Your task to perform on an android device: Open the calendar app, open the side menu, and click the "Day" option Image 0: 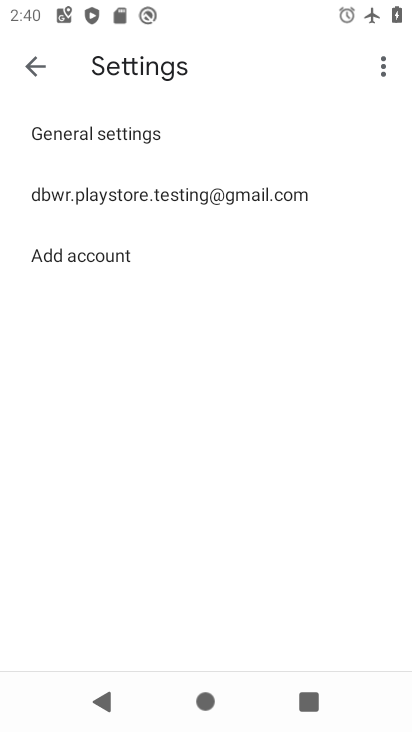
Step 0: press home button
Your task to perform on an android device: Open the calendar app, open the side menu, and click the "Day" option Image 1: 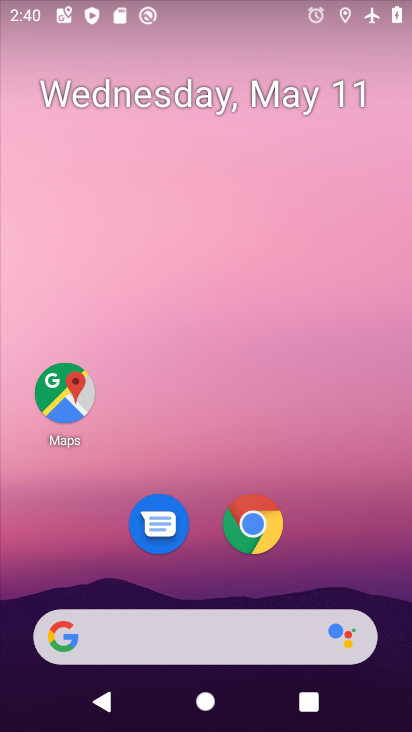
Step 1: drag from (336, 483) to (385, 64)
Your task to perform on an android device: Open the calendar app, open the side menu, and click the "Day" option Image 2: 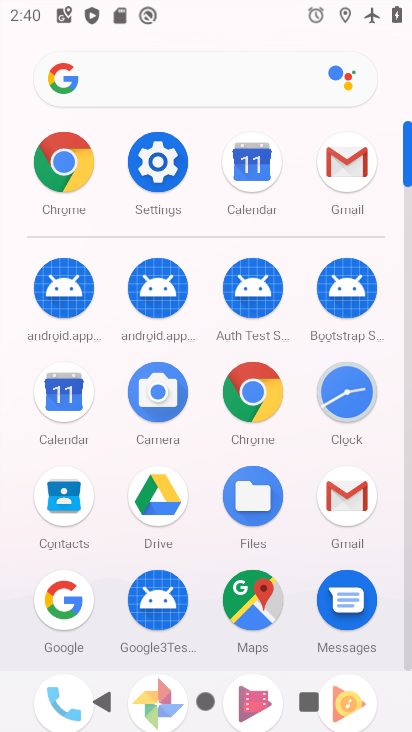
Step 2: click (262, 168)
Your task to perform on an android device: Open the calendar app, open the side menu, and click the "Day" option Image 3: 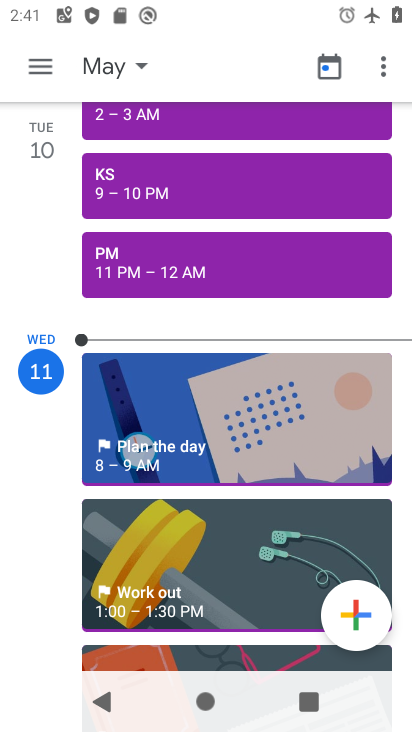
Step 3: click (43, 63)
Your task to perform on an android device: Open the calendar app, open the side menu, and click the "Day" option Image 4: 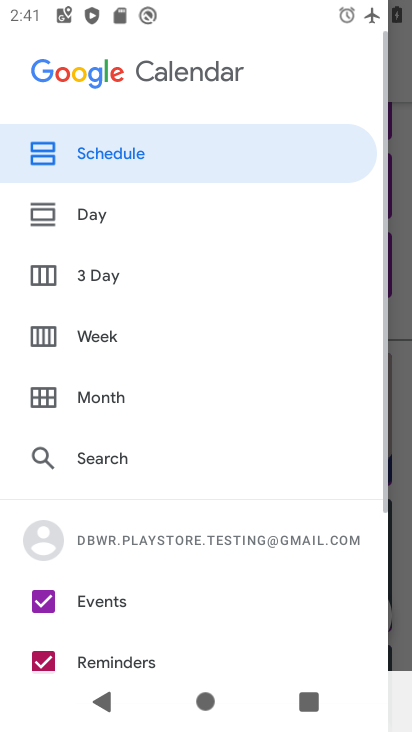
Step 4: click (77, 211)
Your task to perform on an android device: Open the calendar app, open the side menu, and click the "Day" option Image 5: 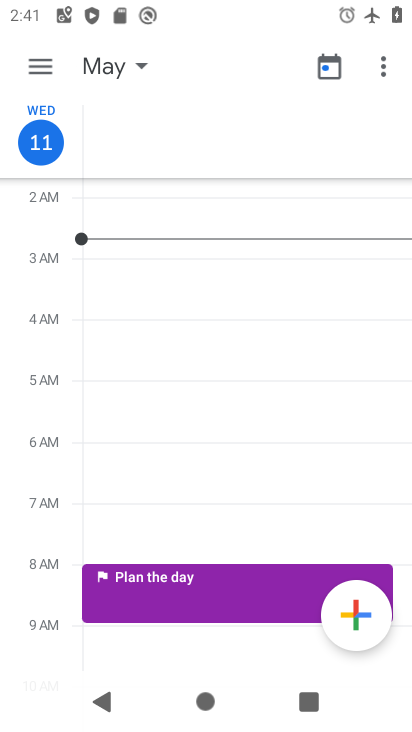
Step 5: task complete